Your task to perform on an android device: Find coffee shops on Maps Image 0: 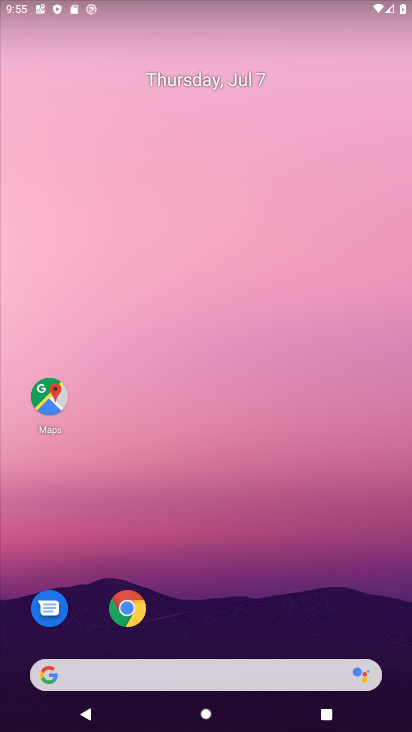
Step 0: drag from (221, 592) to (189, 92)
Your task to perform on an android device: Find coffee shops on Maps Image 1: 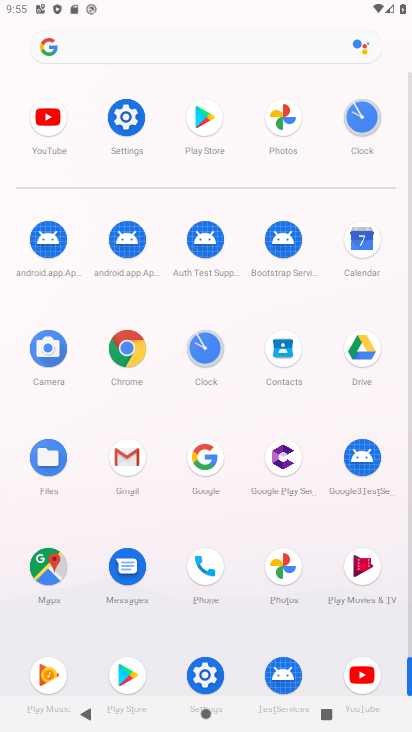
Step 1: click (48, 562)
Your task to perform on an android device: Find coffee shops on Maps Image 2: 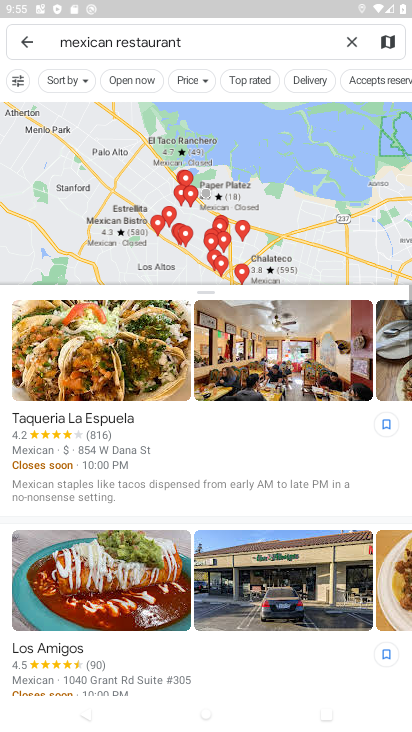
Step 2: click (352, 36)
Your task to perform on an android device: Find coffee shops on Maps Image 3: 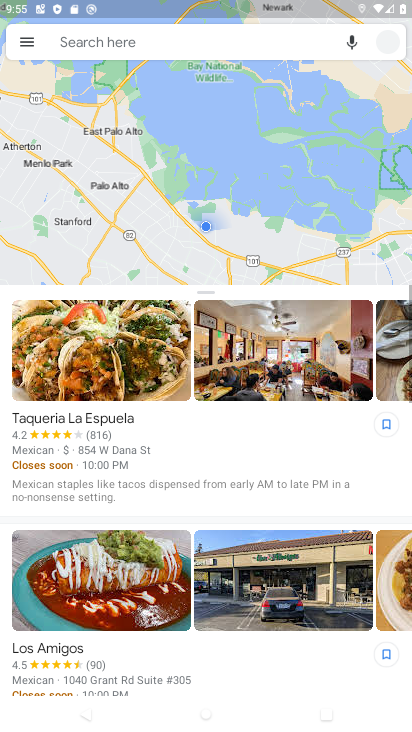
Step 3: click (257, 42)
Your task to perform on an android device: Find coffee shops on Maps Image 4: 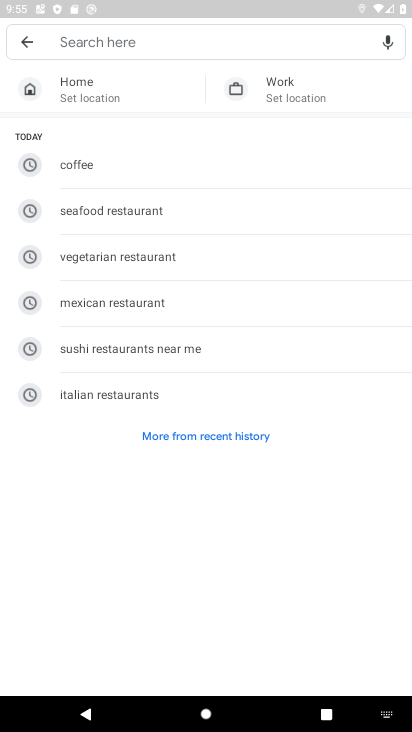
Step 4: click (114, 165)
Your task to perform on an android device: Find coffee shops on Maps Image 5: 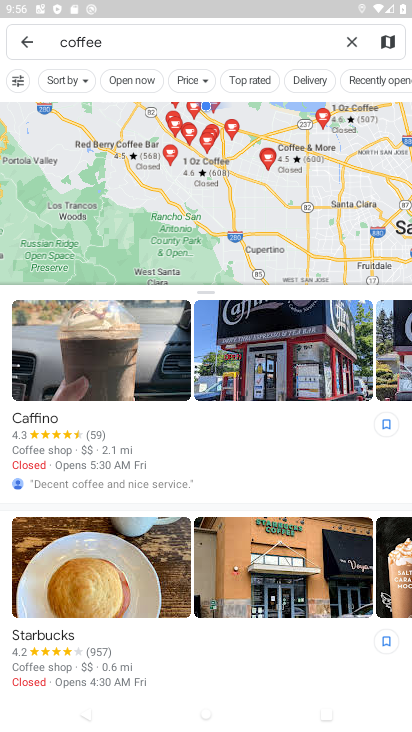
Step 5: task complete